Your task to perform on an android device: find which apps use the phone's location Image 0: 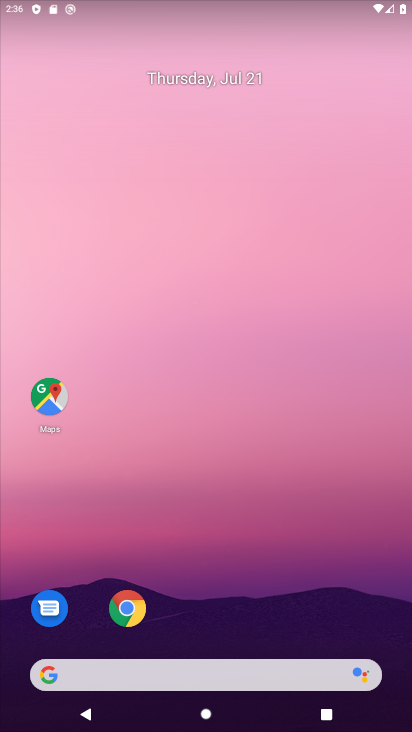
Step 0: drag from (229, 688) to (204, 80)
Your task to perform on an android device: find which apps use the phone's location Image 1: 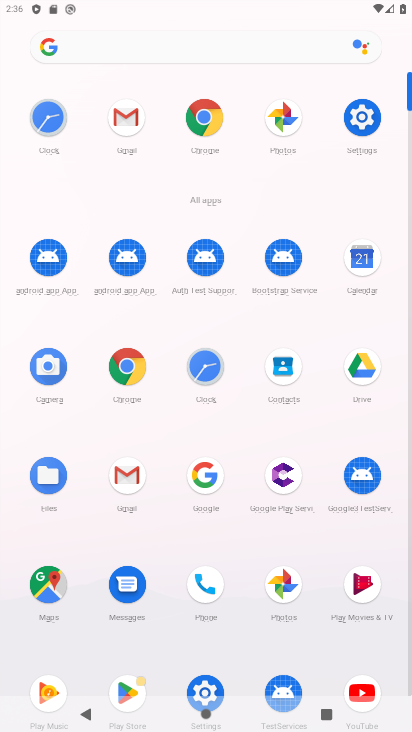
Step 1: click (347, 114)
Your task to perform on an android device: find which apps use the phone's location Image 2: 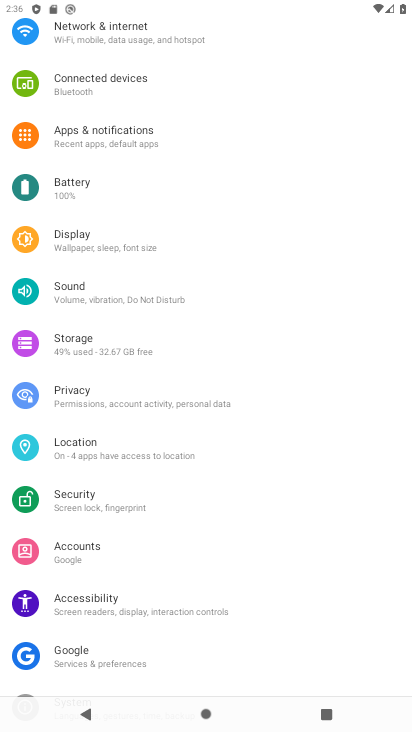
Step 2: click (89, 446)
Your task to perform on an android device: find which apps use the phone's location Image 3: 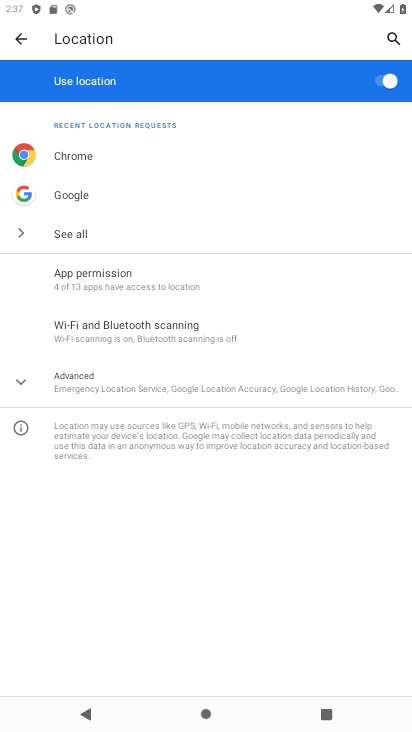
Step 3: click (79, 288)
Your task to perform on an android device: find which apps use the phone's location Image 4: 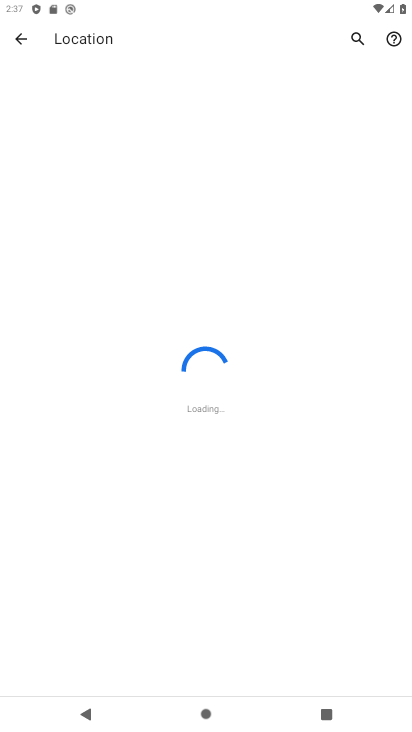
Step 4: task complete